Your task to perform on an android device: turn on showing notifications on the lock screen Image 0: 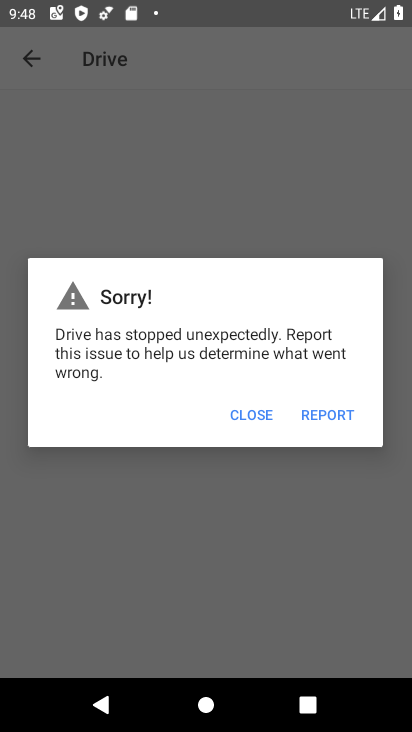
Step 0: press home button
Your task to perform on an android device: turn on showing notifications on the lock screen Image 1: 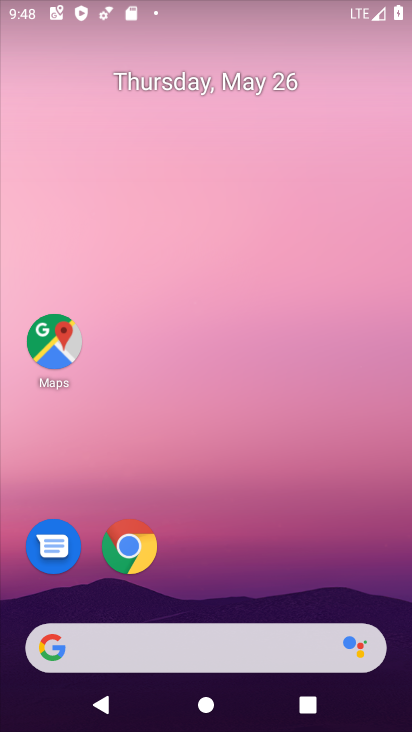
Step 1: drag from (398, 567) to (341, 120)
Your task to perform on an android device: turn on showing notifications on the lock screen Image 2: 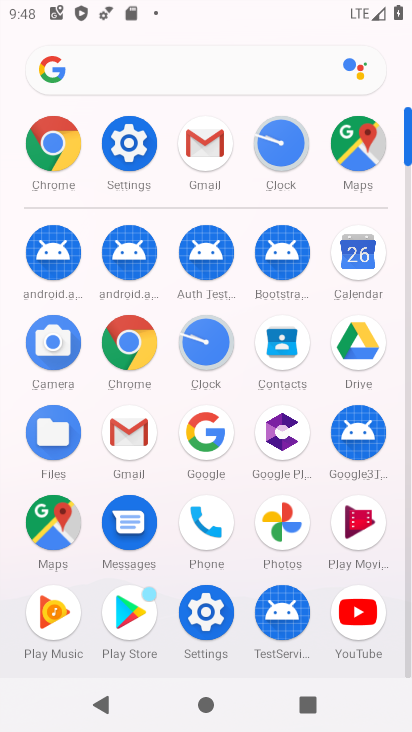
Step 2: click (197, 633)
Your task to perform on an android device: turn on showing notifications on the lock screen Image 3: 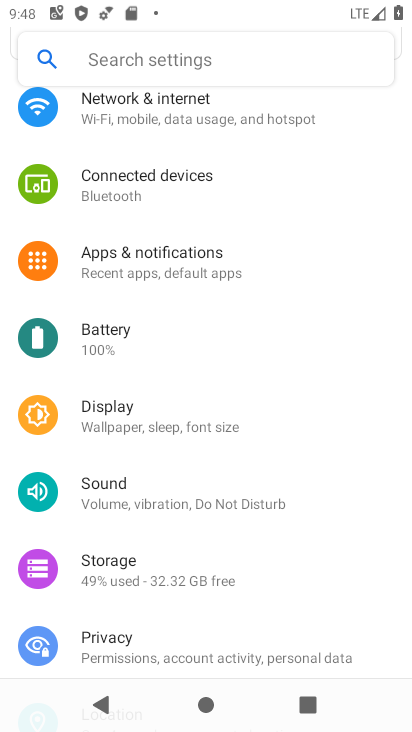
Step 3: click (209, 268)
Your task to perform on an android device: turn on showing notifications on the lock screen Image 4: 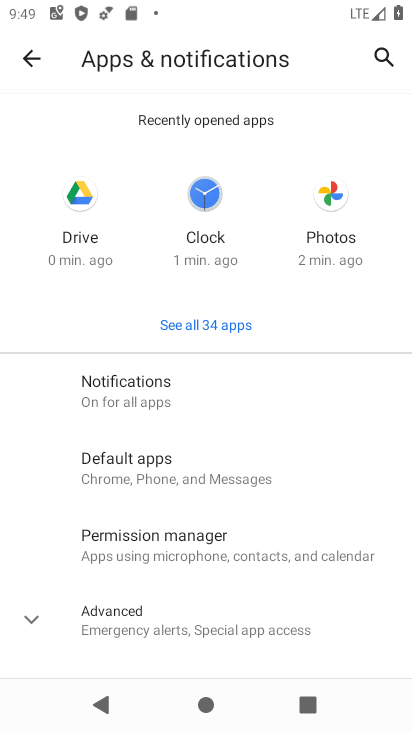
Step 4: click (164, 388)
Your task to perform on an android device: turn on showing notifications on the lock screen Image 5: 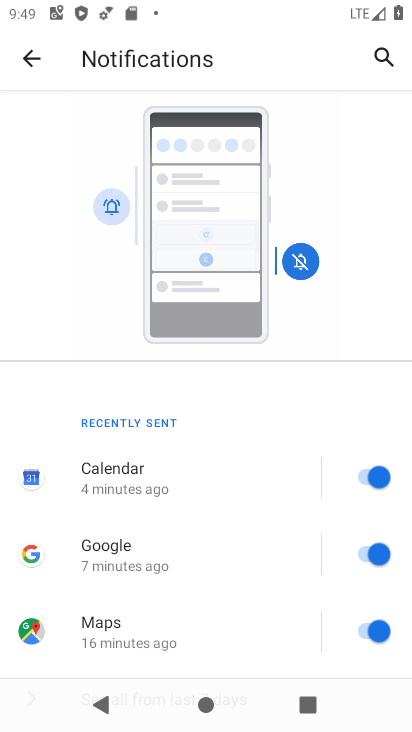
Step 5: drag from (219, 578) to (239, 329)
Your task to perform on an android device: turn on showing notifications on the lock screen Image 6: 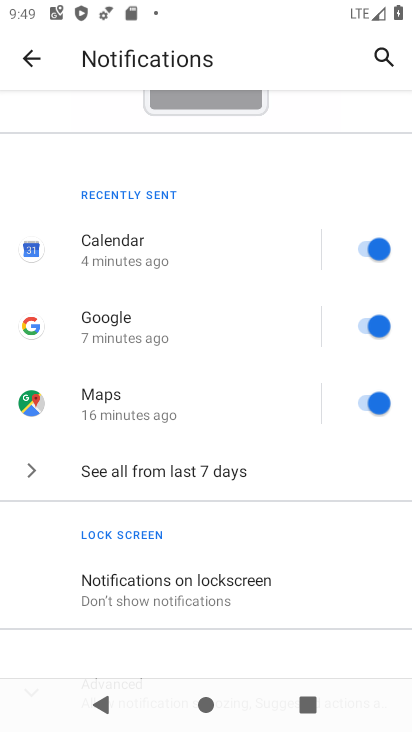
Step 6: click (227, 599)
Your task to perform on an android device: turn on showing notifications on the lock screen Image 7: 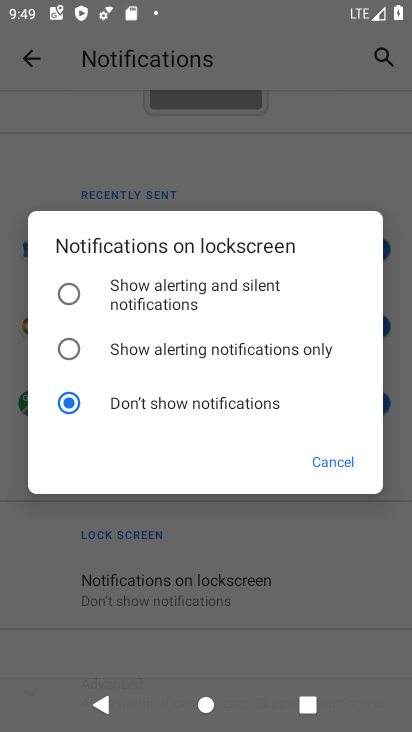
Step 7: click (67, 288)
Your task to perform on an android device: turn on showing notifications on the lock screen Image 8: 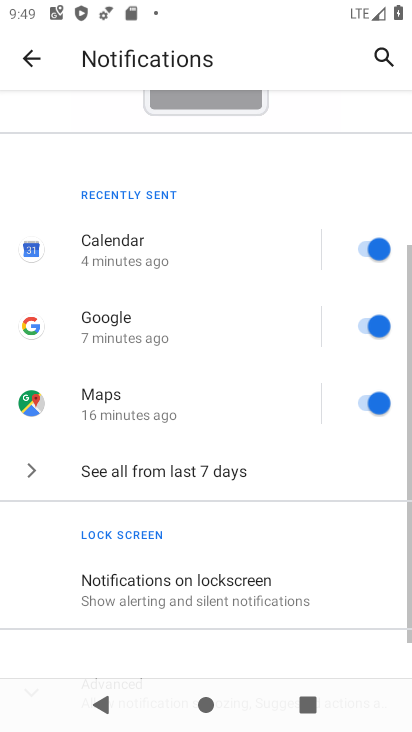
Step 8: task complete